Your task to perform on an android device: Go to Google Image 0: 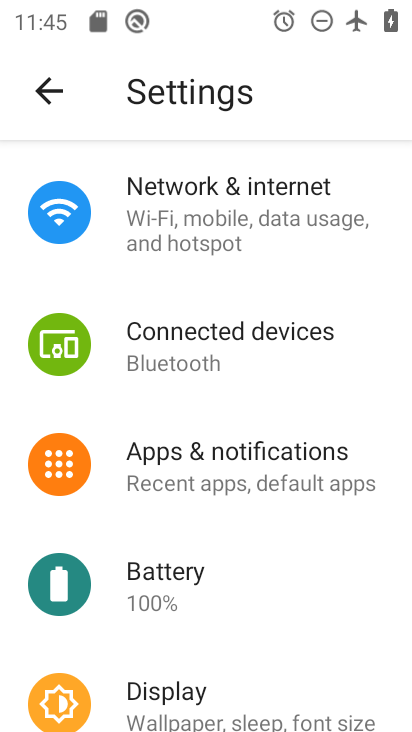
Step 0: press home button
Your task to perform on an android device: Go to Google Image 1: 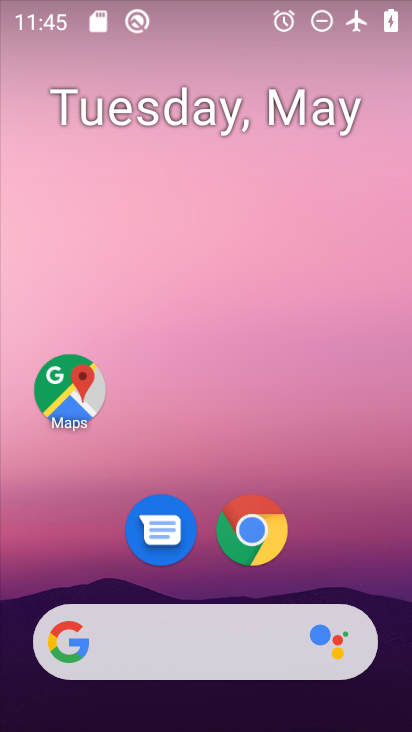
Step 1: drag from (218, 428) to (266, 17)
Your task to perform on an android device: Go to Google Image 2: 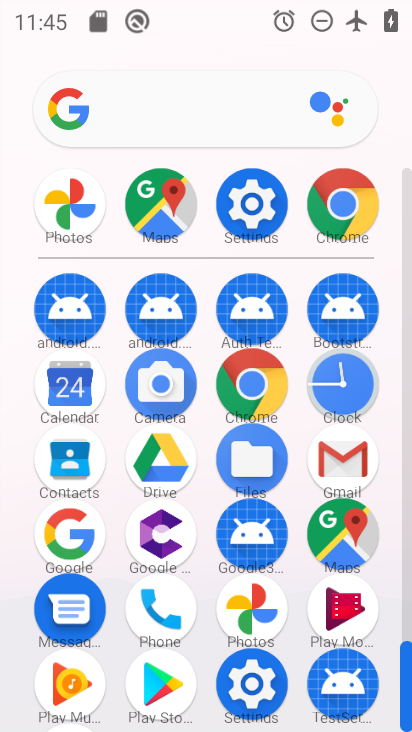
Step 2: click (73, 534)
Your task to perform on an android device: Go to Google Image 3: 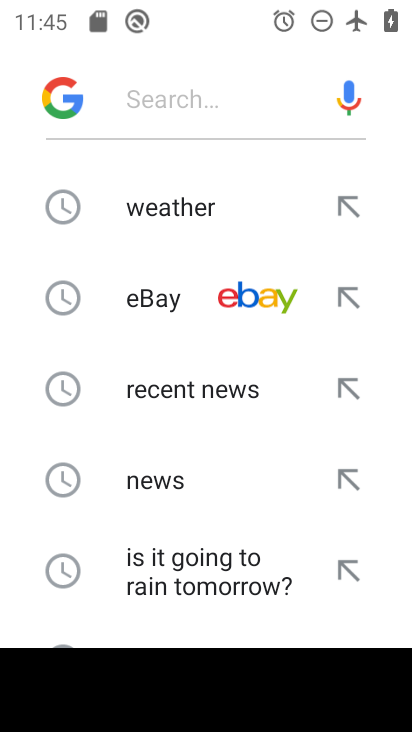
Step 3: task complete